Your task to perform on an android device: toggle wifi Image 0: 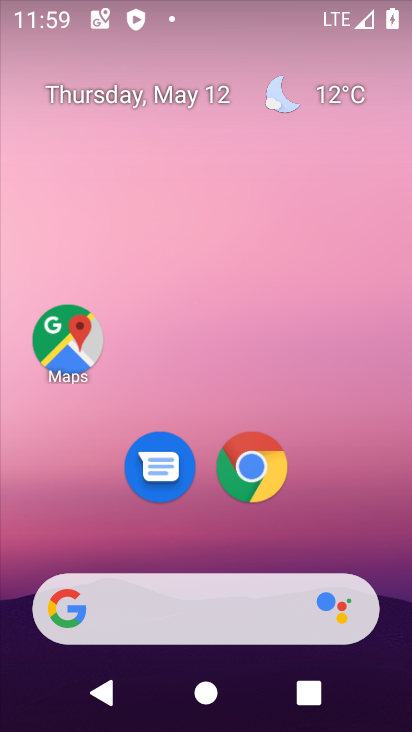
Step 0: drag from (361, 518) to (254, 48)
Your task to perform on an android device: toggle wifi Image 1: 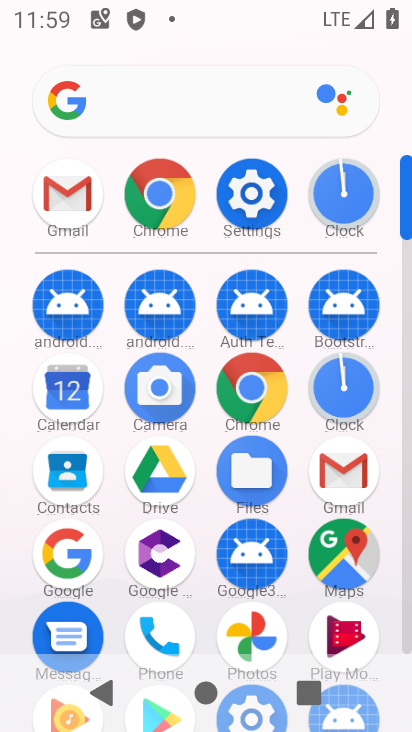
Step 1: drag from (8, 516) to (26, 270)
Your task to perform on an android device: toggle wifi Image 2: 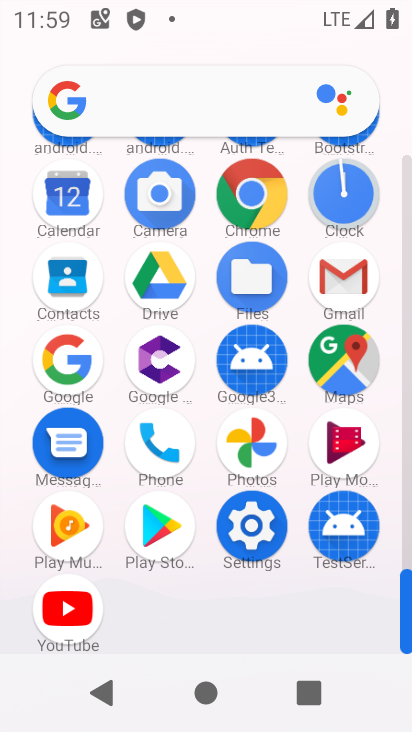
Step 2: click (254, 522)
Your task to perform on an android device: toggle wifi Image 3: 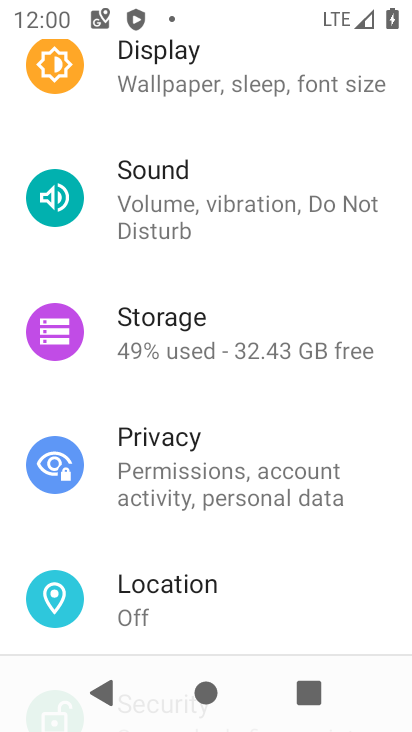
Step 3: drag from (206, 121) to (234, 505)
Your task to perform on an android device: toggle wifi Image 4: 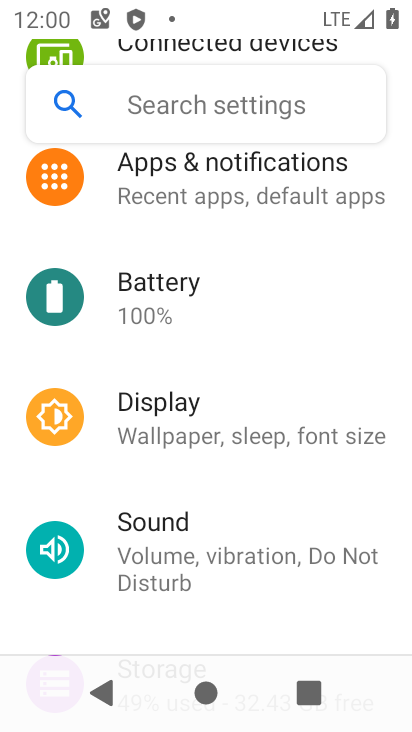
Step 4: drag from (263, 249) to (268, 496)
Your task to perform on an android device: toggle wifi Image 5: 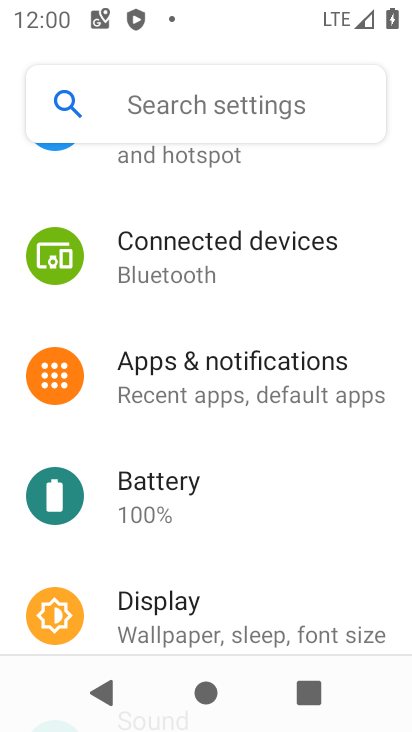
Step 5: drag from (257, 212) to (279, 562)
Your task to perform on an android device: toggle wifi Image 6: 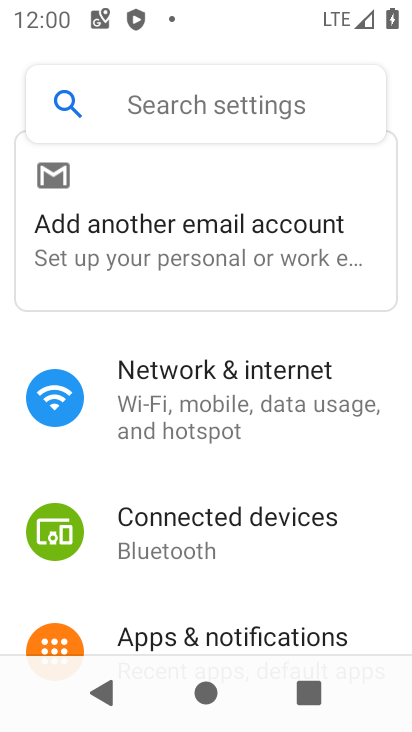
Step 6: click (232, 376)
Your task to perform on an android device: toggle wifi Image 7: 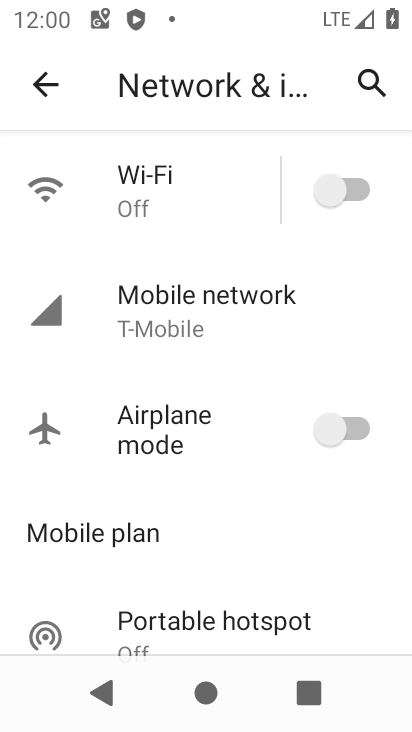
Step 7: click (344, 181)
Your task to perform on an android device: toggle wifi Image 8: 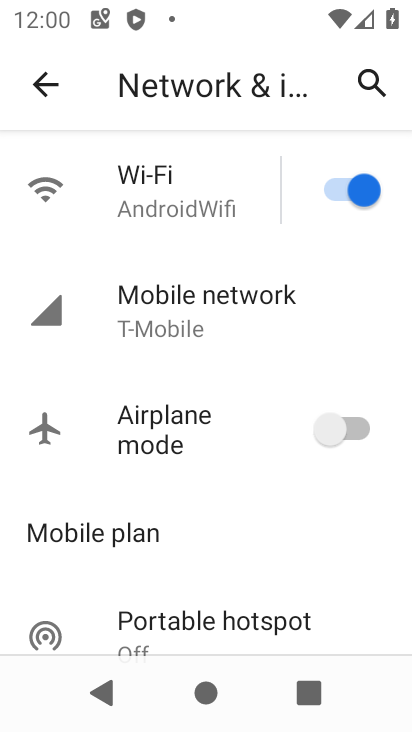
Step 8: task complete